Your task to perform on an android device: allow notifications from all sites in the chrome app Image 0: 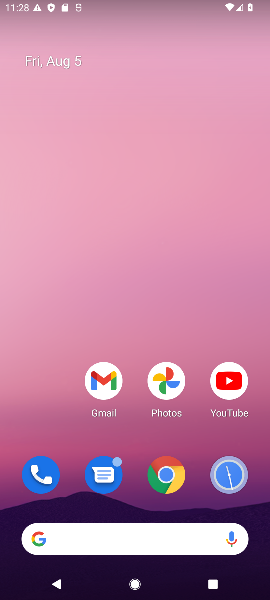
Step 0: click (158, 469)
Your task to perform on an android device: allow notifications from all sites in the chrome app Image 1: 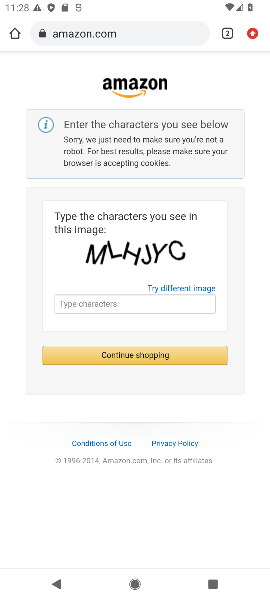
Step 1: click (251, 32)
Your task to perform on an android device: allow notifications from all sites in the chrome app Image 2: 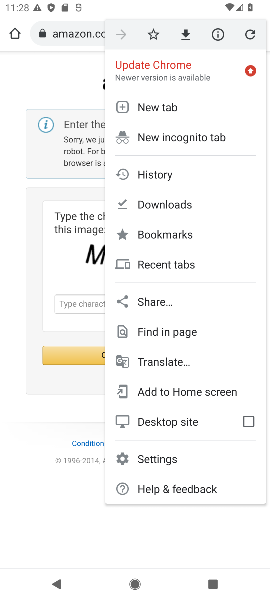
Step 2: click (150, 463)
Your task to perform on an android device: allow notifications from all sites in the chrome app Image 3: 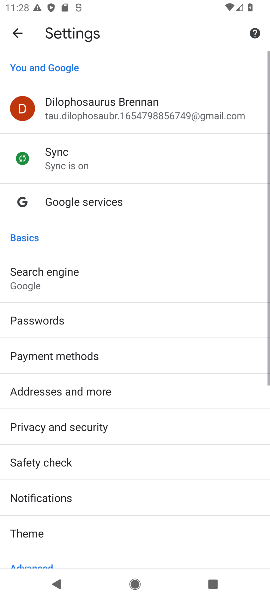
Step 3: click (50, 494)
Your task to perform on an android device: allow notifications from all sites in the chrome app Image 4: 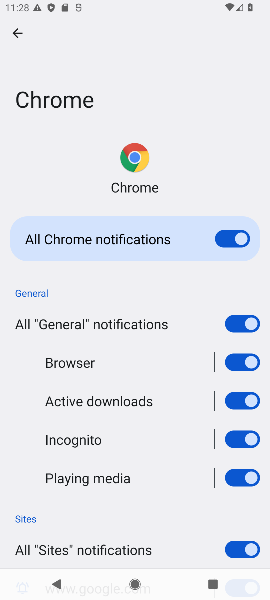
Step 4: task complete